Your task to perform on an android device: turn on the 12-hour format for clock Image 0: 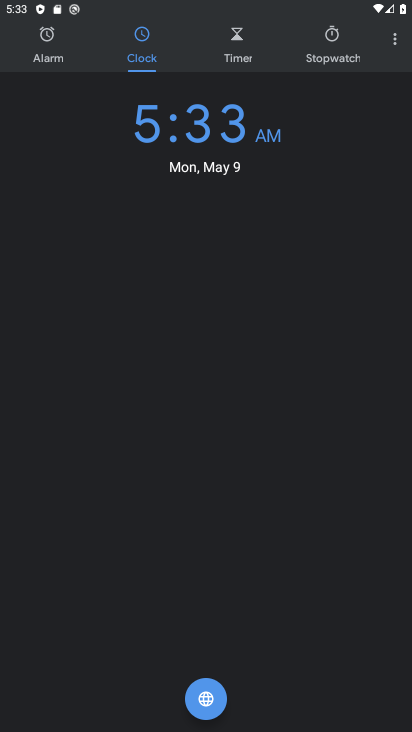
Step 0: click (391, 41)
Your task to perform on an android device: turn on the 12-hour format for clock Image 1: 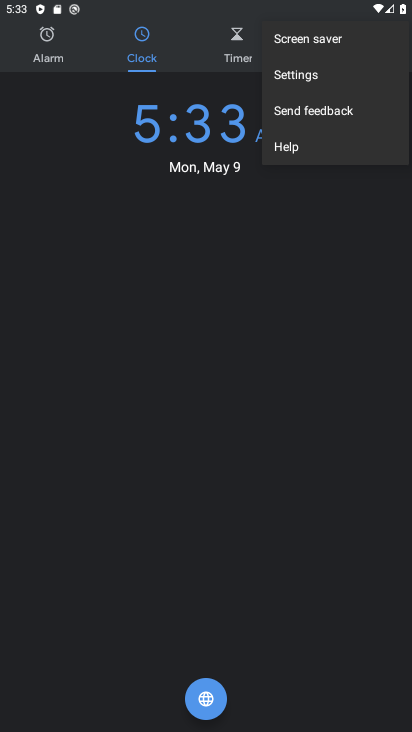
Step 1: click (294, 77)
Your task to perform on an android device: turn on the 12-hour format for clock Image 2: 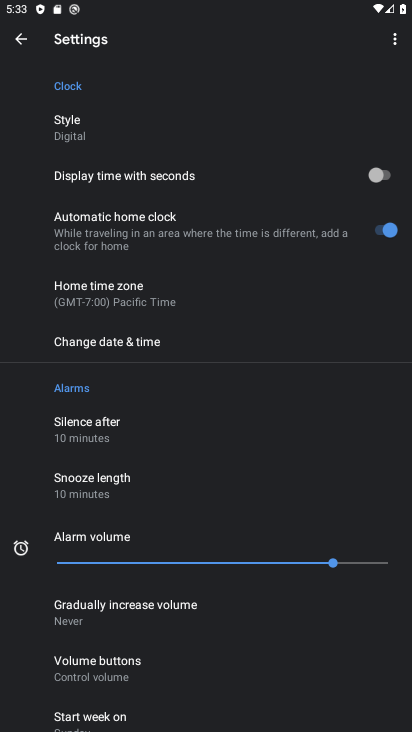
Step 2: click (99, 337)
Your task to perform on an android device: turn on the 12-hour format for clock Image 3: 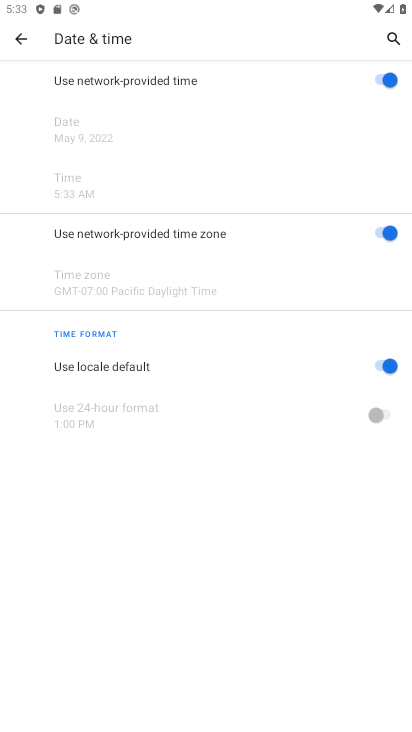
Step 3: task complete